Your task to perform on an android device: Go to wifi settings Image 0: 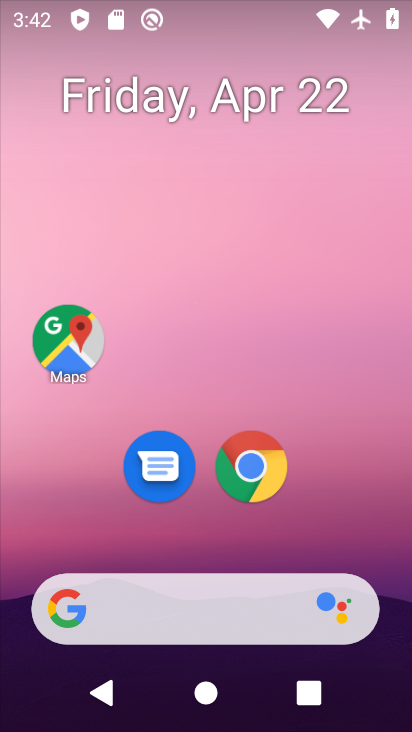
Step 0: drag from (397, 608) to (321, 29)
Your task to perform on an android device: Go to wifi settings Image 1: 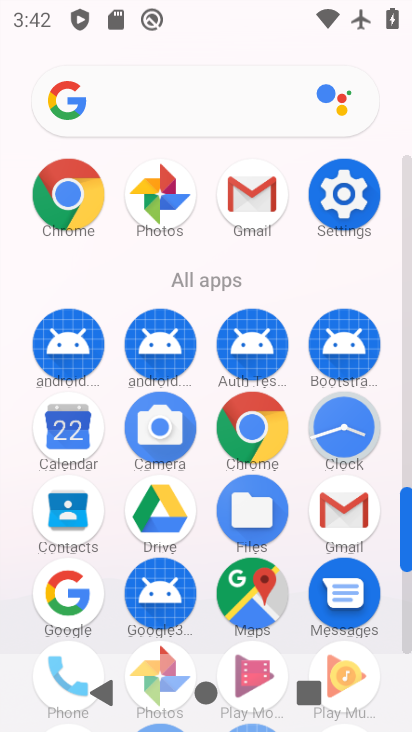
Step 1: click (406, 641)
Your task to perform on an android device: Go to wifi settings Image 2: 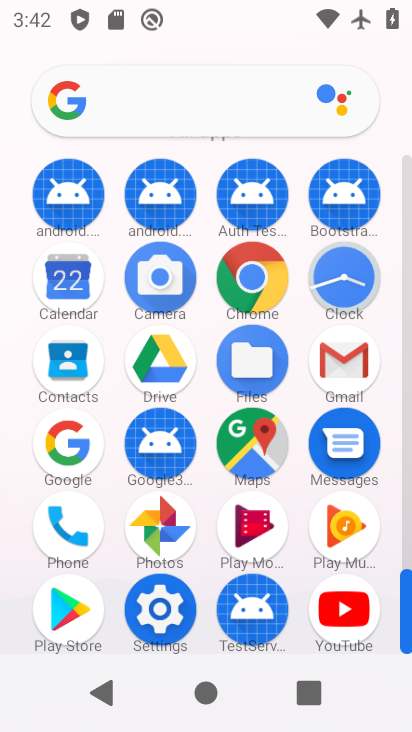
Step 2: click (157, 608)
Your task to perform on an android device: Go to wifi settings Image 3: 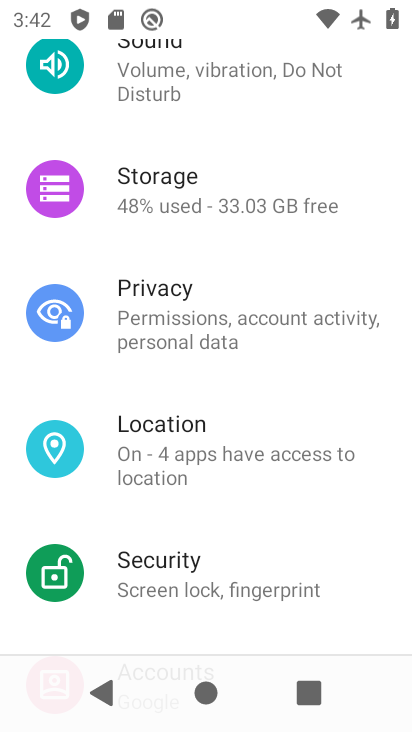
Step 3: drag from (378, 263) to (369, 577)
Your task to perform on an android device: Go to wifi settings Image 4: 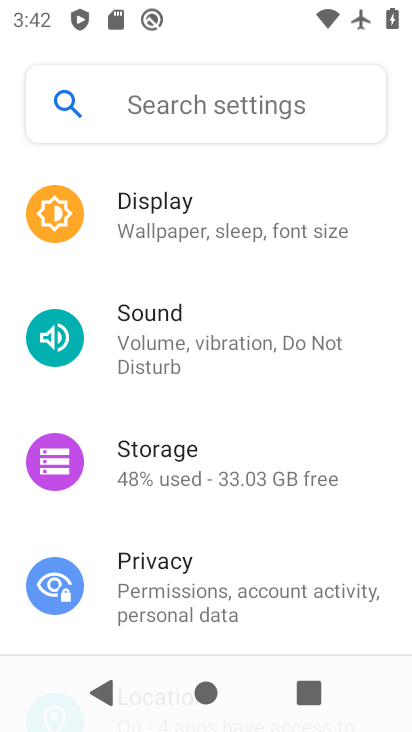
Step 4: drag from (367, 177) to (407, 524)
Your task to perform on an android device: Go to wifi settings Image 5: 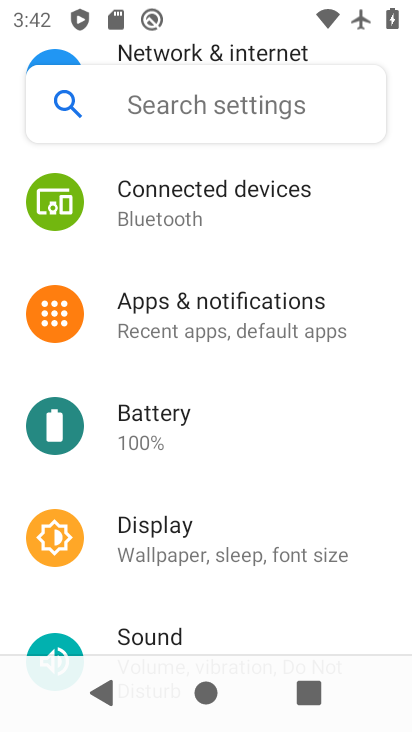
Step 5: drag from (342, 192) to (369, 521)
Your task to perform on an android device: Go to wifi settings Image 6: 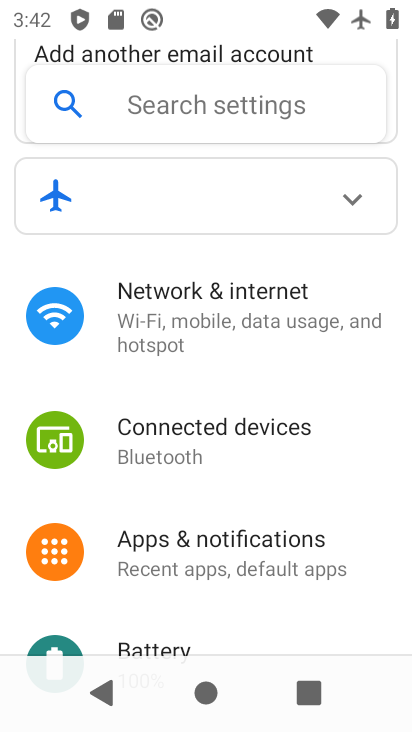
Step 6: click (162, 316)
Your task to perform on an android device: Go to wifi settings Image 7: 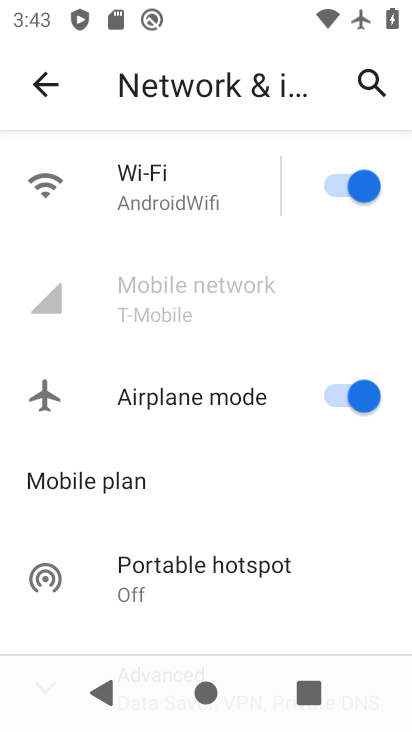
Step 7: click (152, 179)
Your task to perform on an android device: Go to wifi settings Image 8: 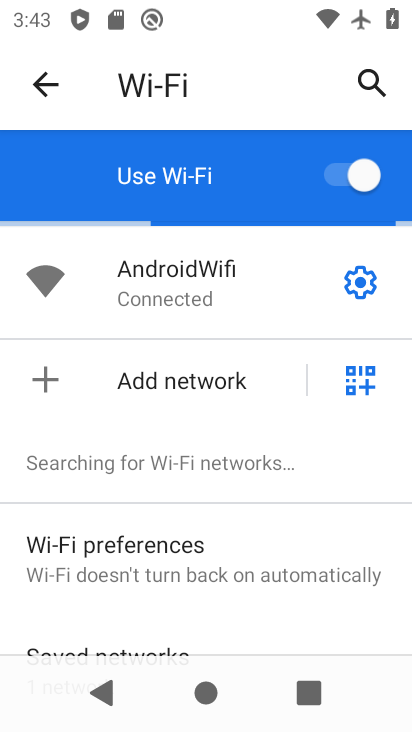
Step 8: task complete